Your task to perform on an android device: add a contact in the contacts app Image 0: 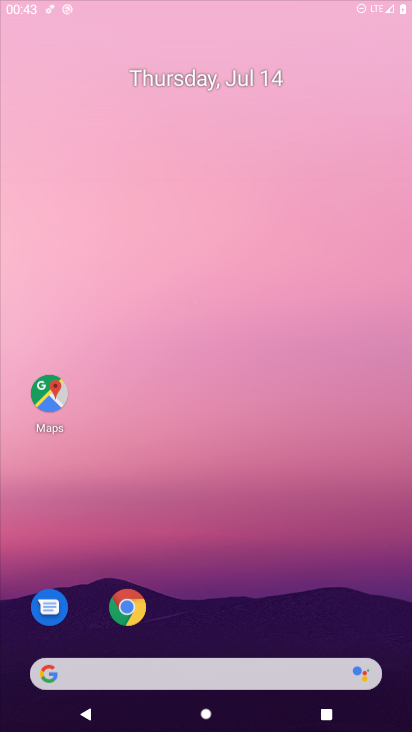
Step 0: press home button
Your task to perform on an android device: add a contact in the contacts app Image 1: 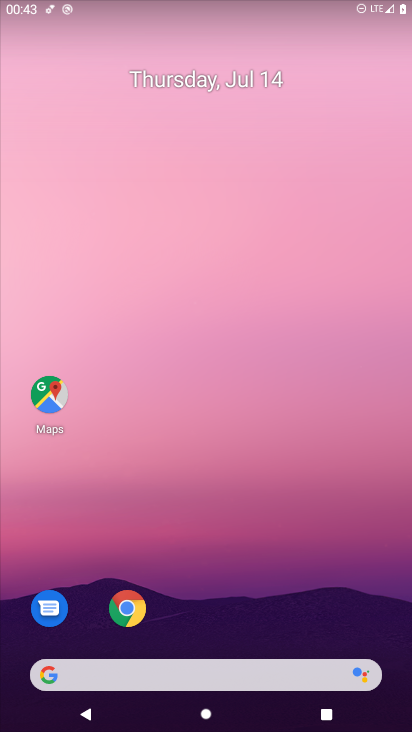
Step 1: drag from (279, 504) to (241, 101)
Your task to perform on an android device: add a contact in the contacts app Image 2: 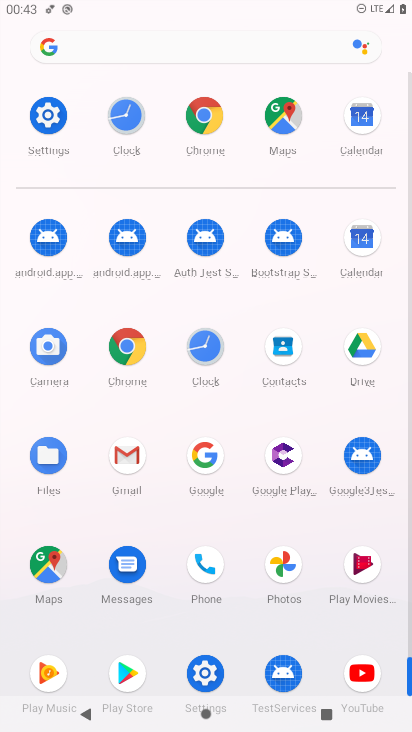
Step 2: click (280, 338)
Your task to perform on an android device: add a contact in the contacts app Image 3: 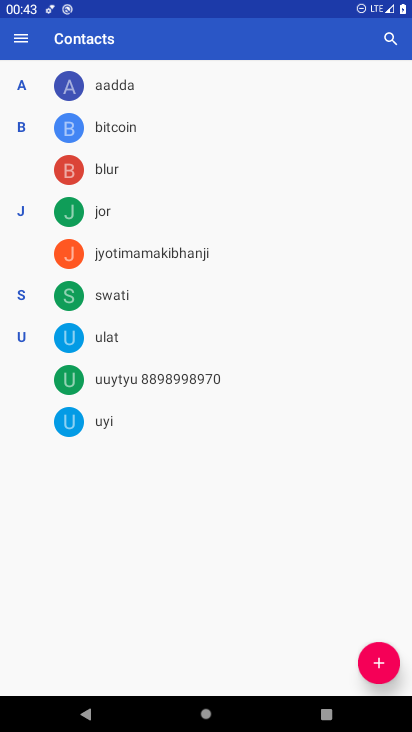
Step 3: click (382, 670)
Your task to perform on an android device: add a contact in the contacts app Image 4: 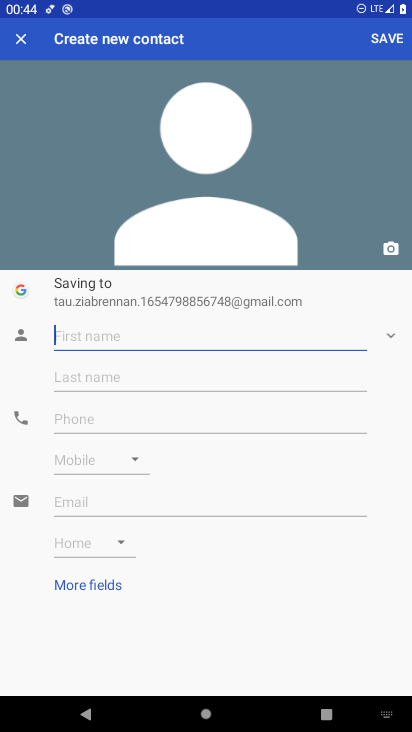
Step 4: type "rfgfgfgf"
Your task to perform on an android device: add a contact in the contacts app Image 5: 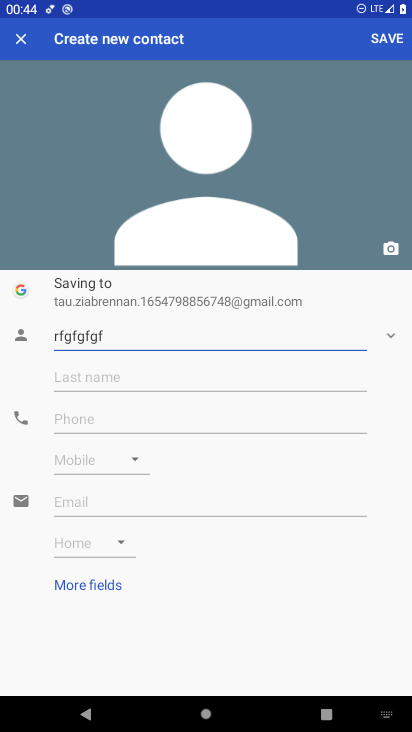
Step 5: click (131, 412)
Your task to perform on an android device: add a contact in the contacts app Image 6: 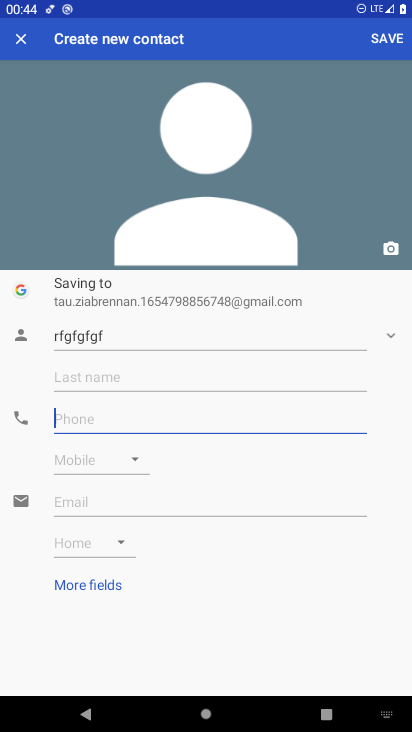
Step 6: type "45465565"
Your task to perform on an android device: add a contact in the contacts app Image 7: 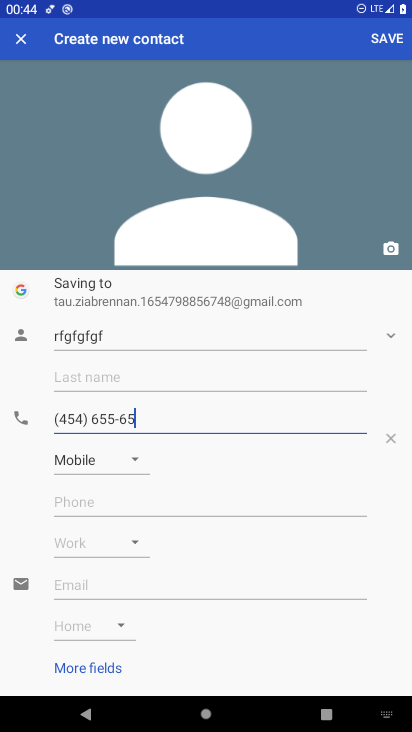
Step 7: click (390, 37)
Your task to perform on an android device: add a contact in the contacts app Image 8: 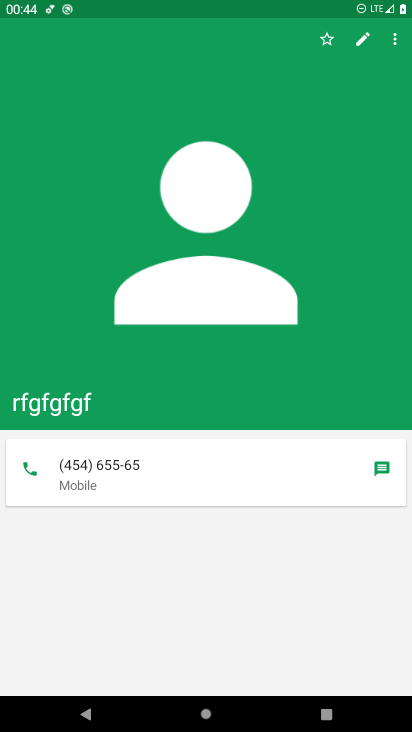
Step 8: task complete